Your task to perform on an android device: Search for seafood restaurants on Google Maps Image 0: 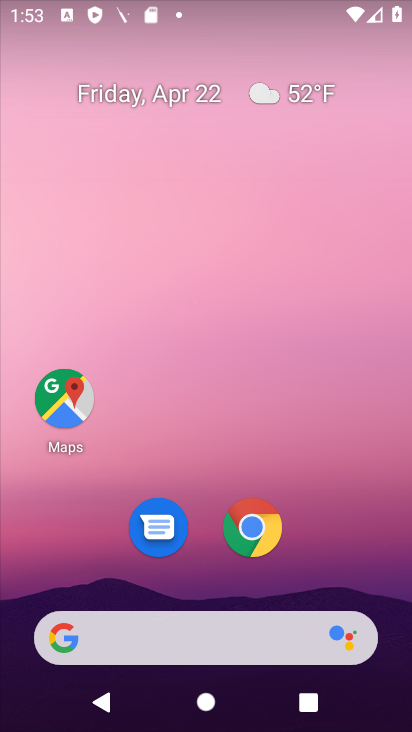
Step 0: click (66, 409)
Your task to perform on an android device: Search for seafood restaurants on Google Maps Image 1: 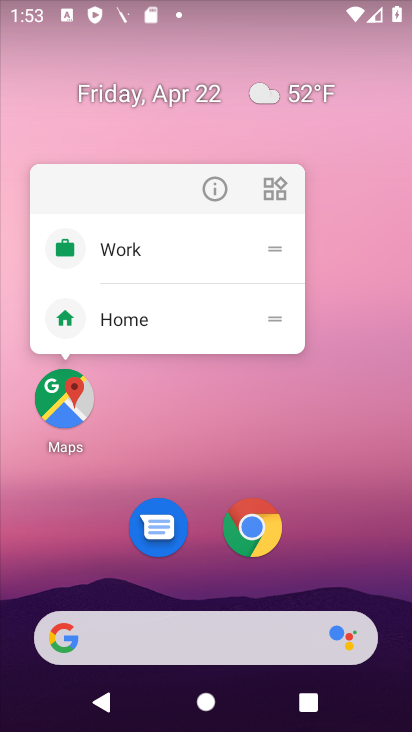
Step 1: click (66, 409)
Your task to perform on an android device: Search for seafood restaurants on Google Maps Image 2: 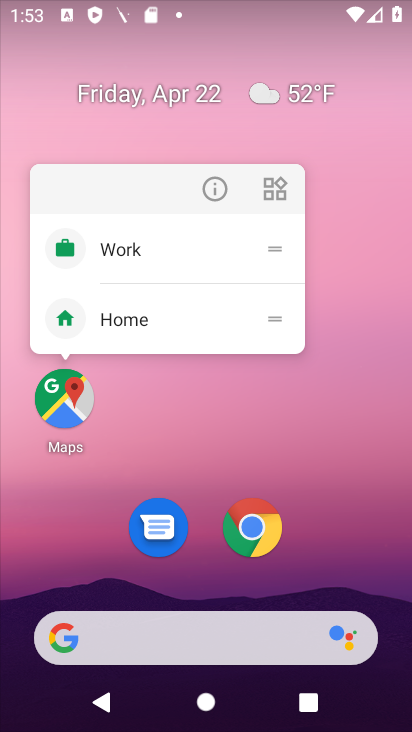
Step 2: click (62, 397)
Your task to perform on an android device: Search for seafood restaurants on Google Maps Image 3: 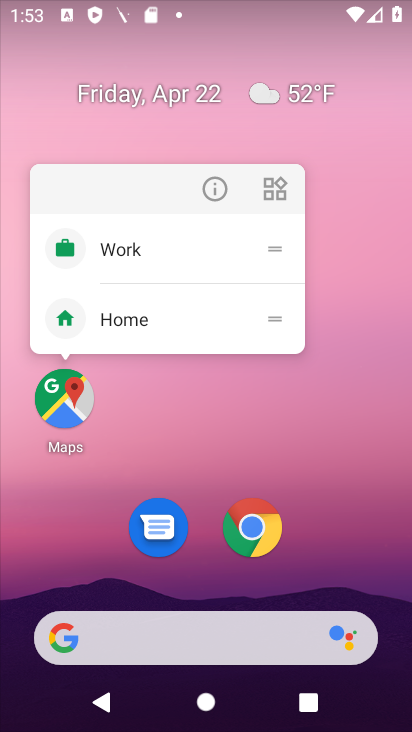
Step 3: click (62, 396)
Your task to perform on an android device: Search for seafood restaurants on Google Maps Image 4: 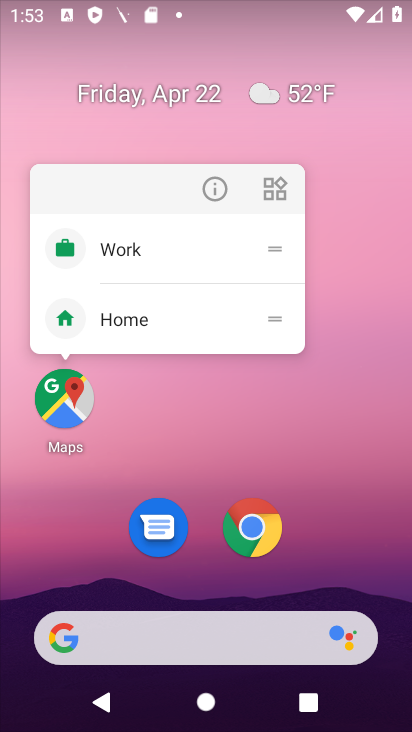
Step 4: click (62, 395)
Your task to perform on an android device: Search for seafood restaurants on Google Maps Image 5: 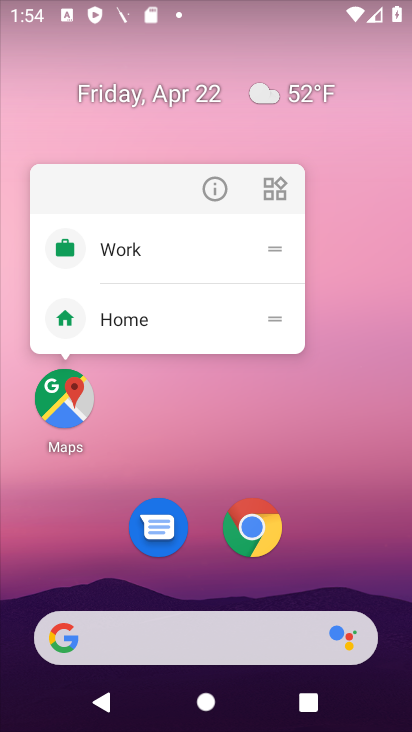
Step 5: click (62, 394)
Your task to perform on an android device: Search for seafood restaurants on Google Maps Image 6: 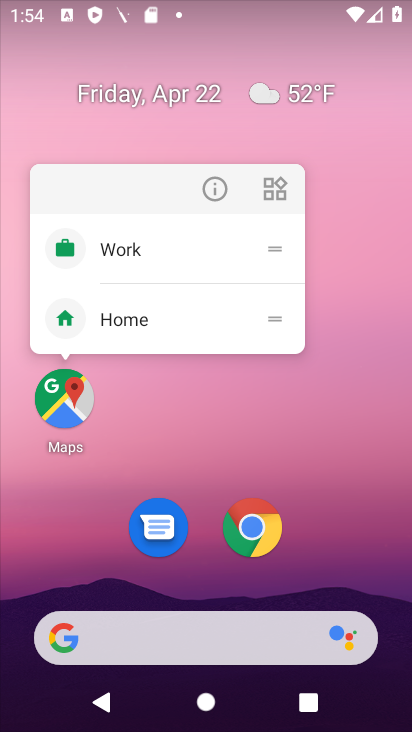
Step 6: click (62, 393)
Your task to perform on an android device: Search for seafood restaurants on Google Maps Image 7: 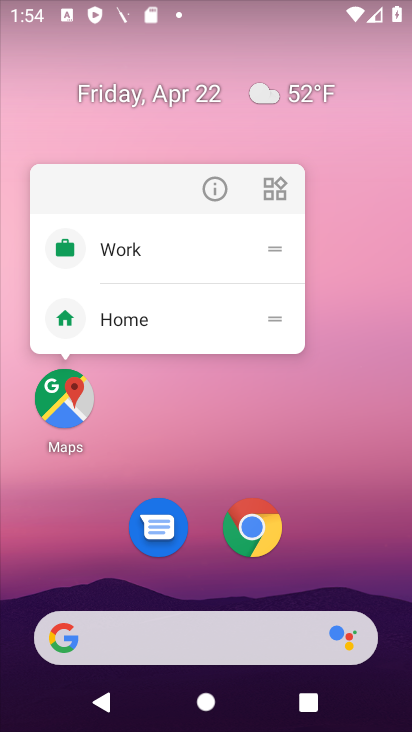
Step 7: click (62, 394)
Your task to perform on an android device: Search for seafood restaurants on Google Maps Image 8: 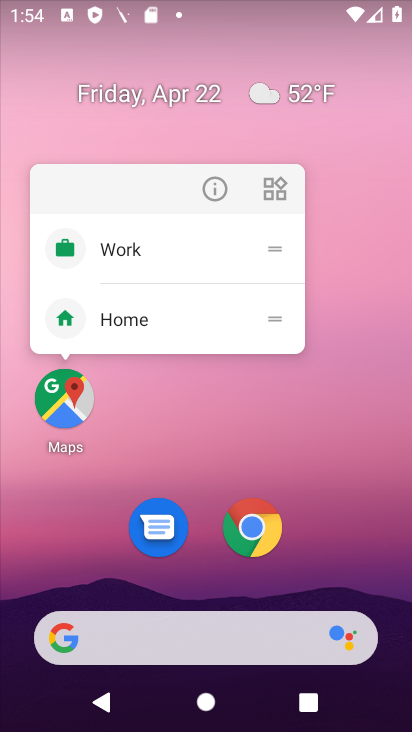
Step 8: click (62, 394)
Your task to perform on an android device: Search for seafood restaurants on Google Maps Image 9: 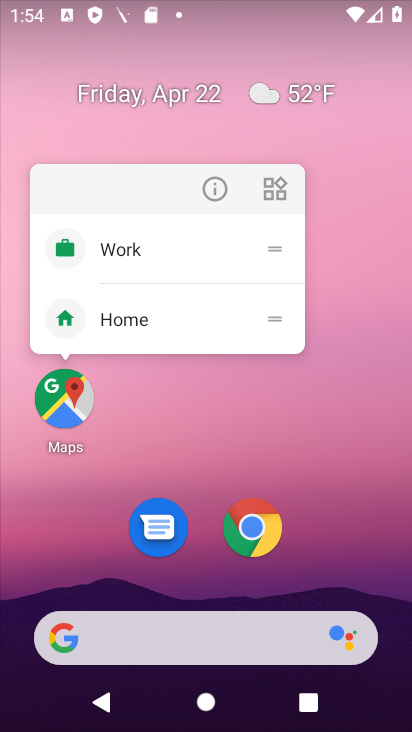
Step 9: click (62, 394)
Your task to perform on an android device: Search for seafood restaurants on Google Maps Image 10: 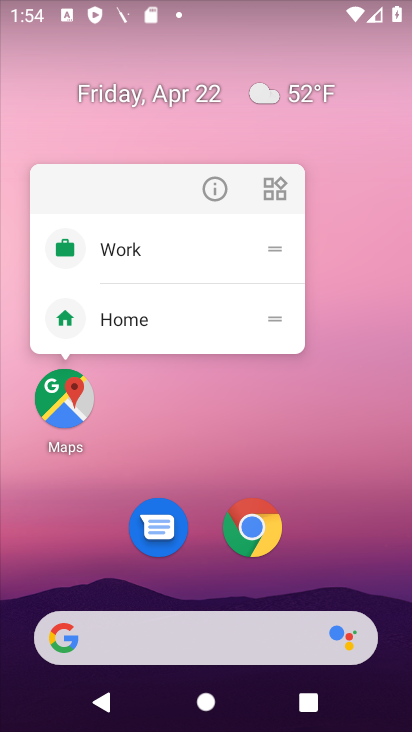
Step 10: click (62, 394)
Your task to perform on an android device: Search for seafood restaurants on Google Maps Image 11: 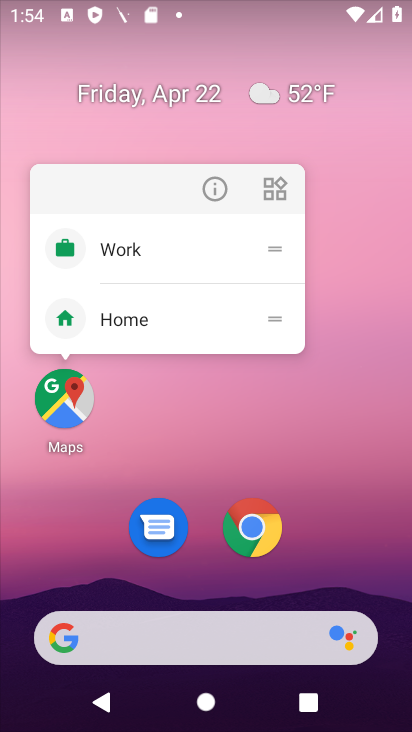
Step 11: click (62, 394)
Your task to perform on an android device: Search for seafood restaurants on Google Maps Image 12: 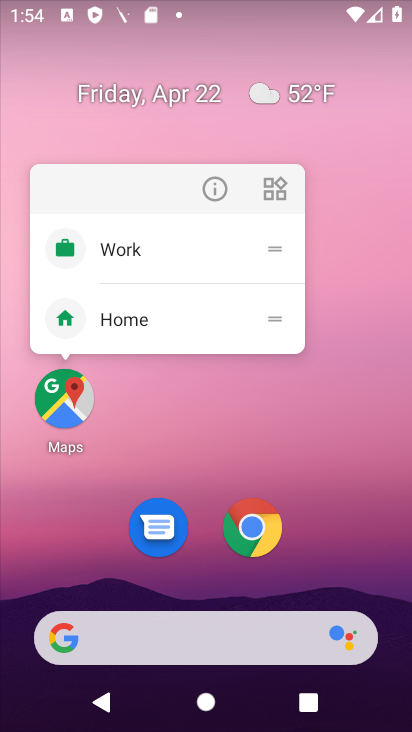
Step 12: click (62, 394)
Your task to perform on an android device: Search for seafood restaurants on Google Maps Image 13: 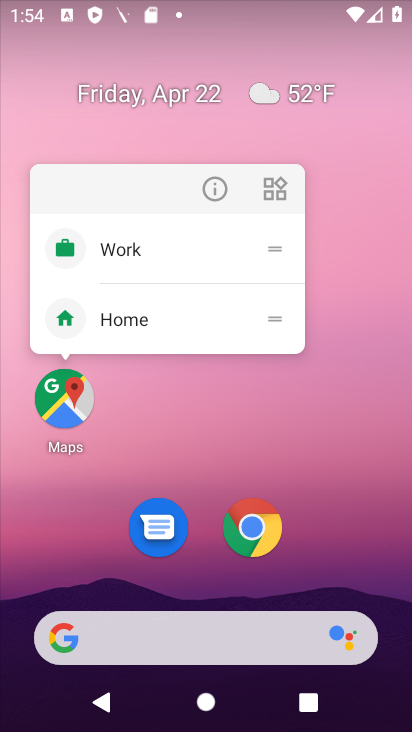
Step 13: click (62, 394)
Your task to perform on an android device: Search for seafood restaurants on Google Maps Image 14: 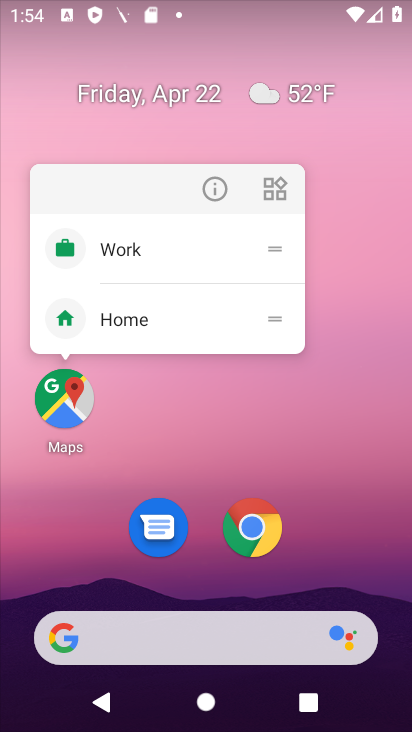
Step 14: click (62, 394)
Your task to perform on an android device: Search for seafood restaurants on Google Maps Image 15: 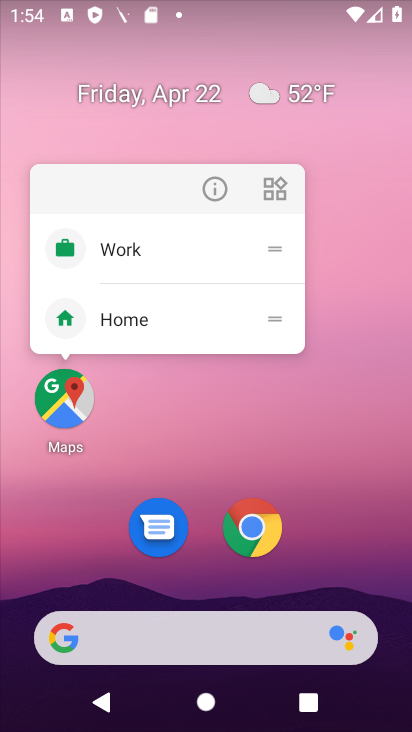
Step 15: click (62, 394)
Your task to perform on an android device: Search for seafood restaurants on Google Maps Image 16: 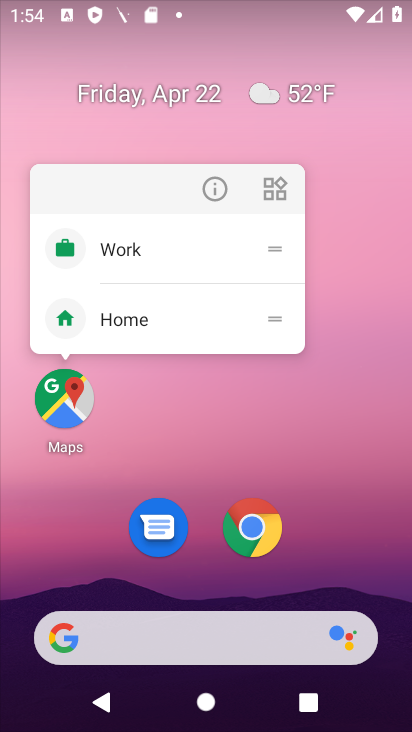
Step 16: click (62, 394)
Your task to perform on an android device: Search for seafood restaurants on Google Maps Image 17: 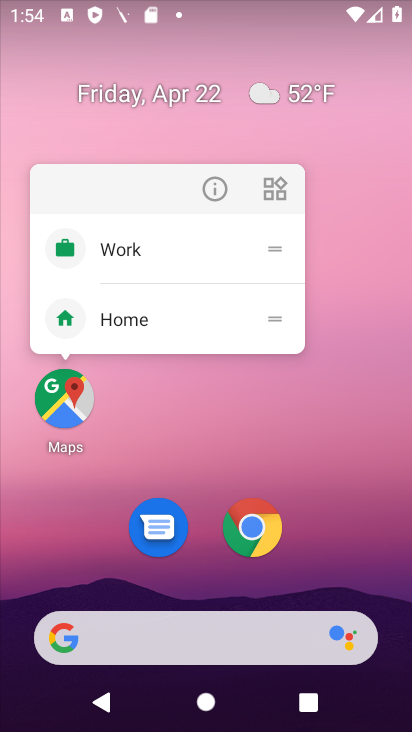
Step 17: click (62, 394)
Your task to perform on an android device: Search for seafood restaurants on Google Maps Image 18: 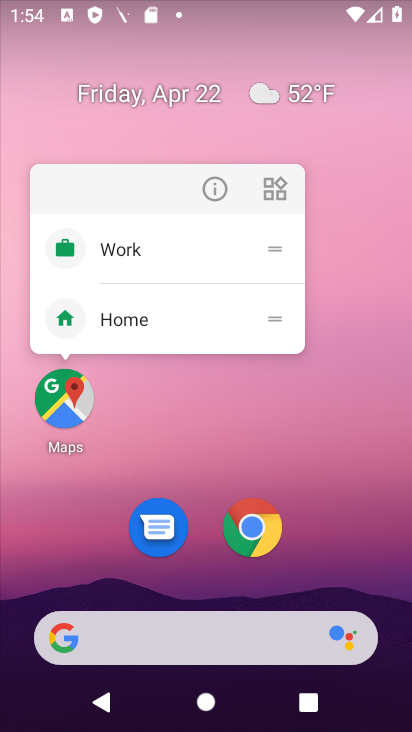
Step 18: click (62, 394)
Your task to perform on an android device: Search for seafood restaurants on Google Maps Image 19: 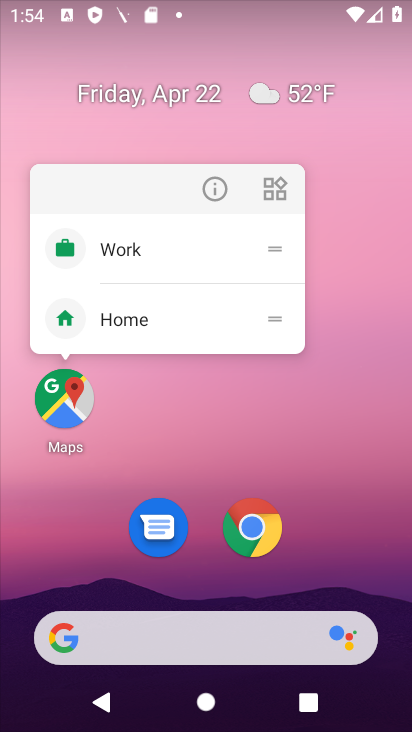
Step 19: click (62, 394)
Your task to perform on an android device: Search for seafood restaurants on Google Maps Image 20: 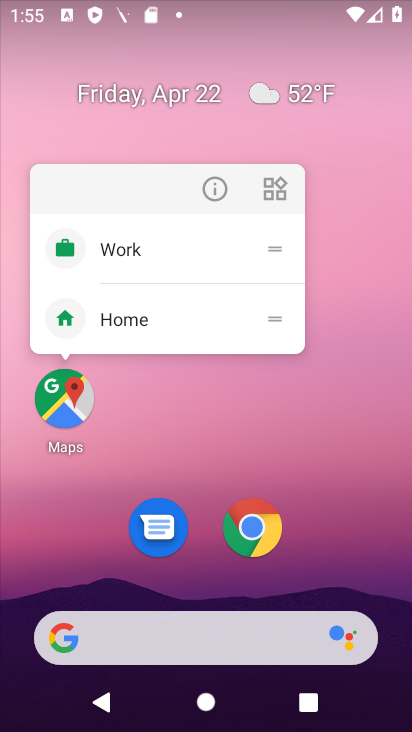
Step 20: click (62, 394)
Your task to perform on an android device: Search for seafood restaurants on Google Maps Image 21: 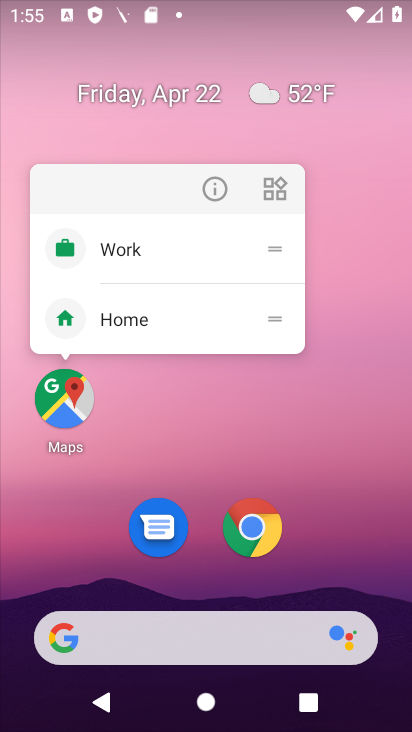
Step 21: click (62, 394)
Your task to perform on an android device: Search for seafood restaurants on Google Maps Image 22: 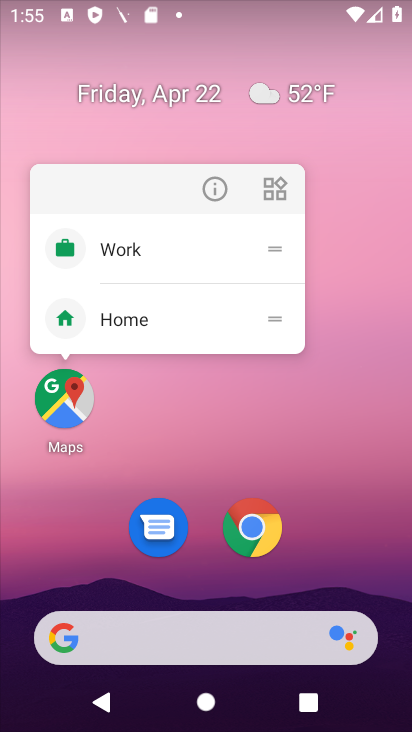
Step 22: click (62, 394)
Your task to perform on an android device: Search for seafood restaurants on Google Maps Image 23: 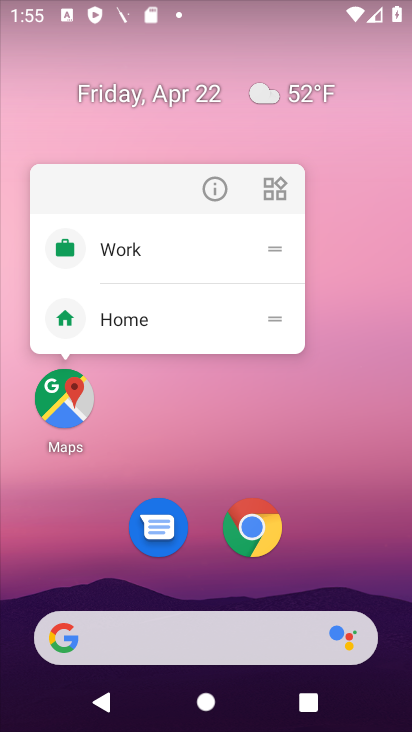
Step 23: click (62, 394)
Your task to perform on an android device: Search for seafood restaurants on Google Maps Image 24: 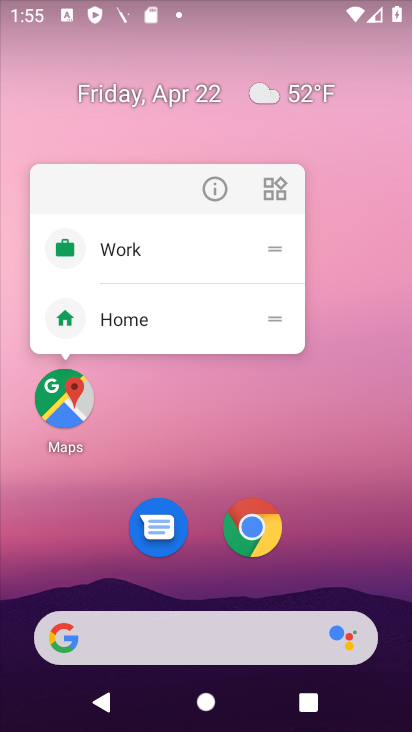
Step 24: click (62, 394)
Your task to perform on an android device: Search for seafood restaurants on Google Maps Image 25: 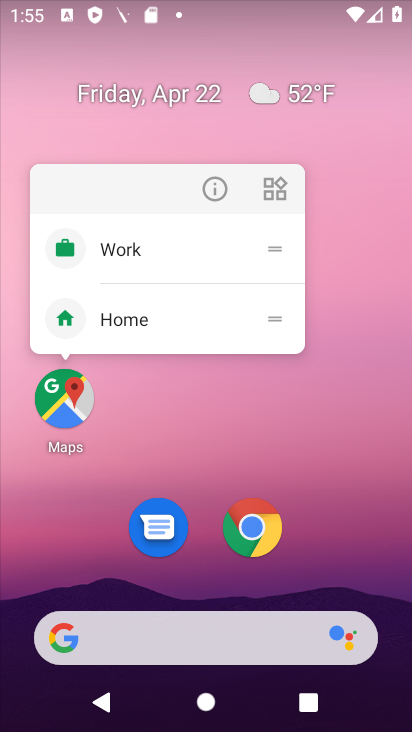
Step 25: click (62, 394)
Your task to perform on an android device: Search for seafood restaurants on Google Maps Image 26: 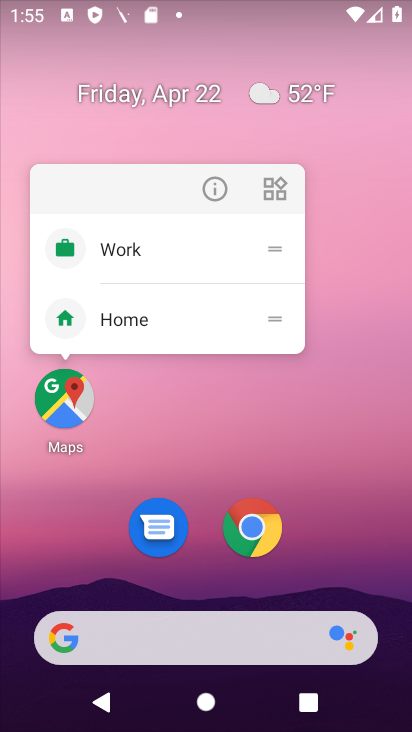
Step 26: click (62, 394)
Your task to perform on an android device: Search for seafood restaurants on Google Maps Image 27: 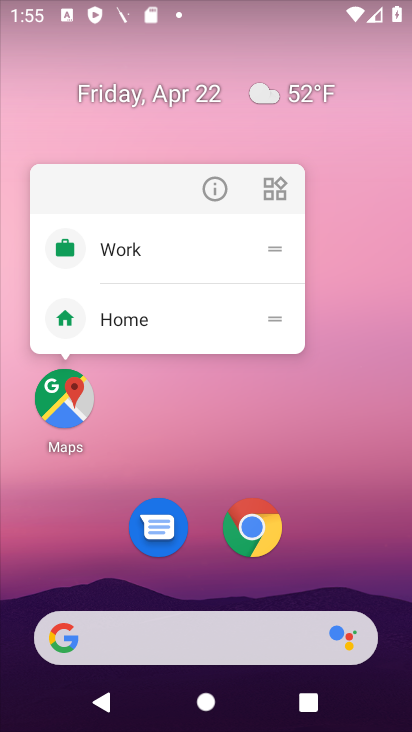
Step 27: click (62, 394)
Your task to perform on an android device: Search for seafood restaurants on Google Maps Image 28: 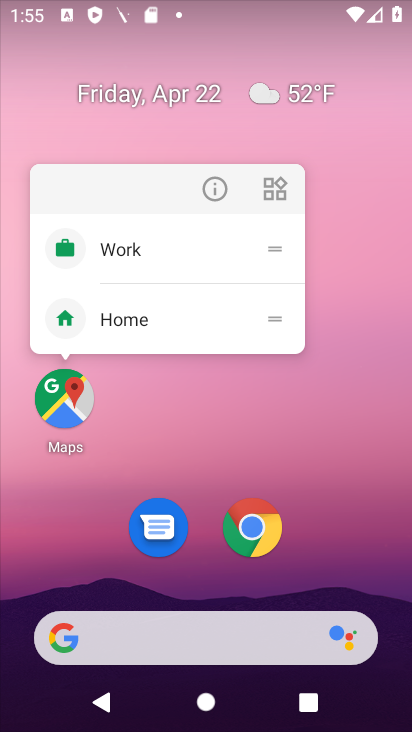
Step 28: click (62, 394)
Your task to perform on an android device: Search for seafood restaurants on Google Maps Image 29: 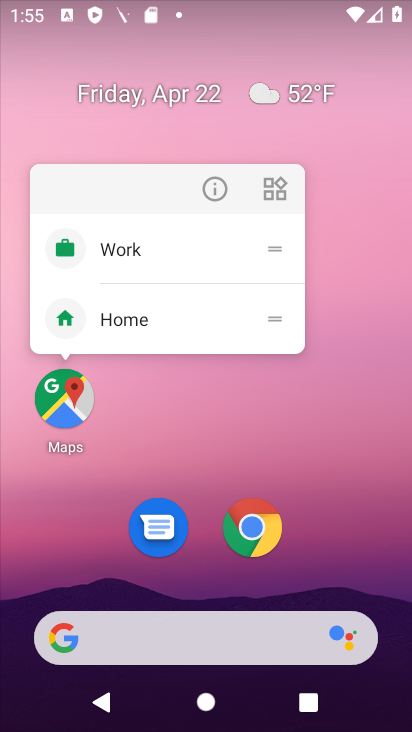
Step 29: click (62, 394)
Your task to perform on an android device: Search for seafood restaurants on Google Maps Image 30: 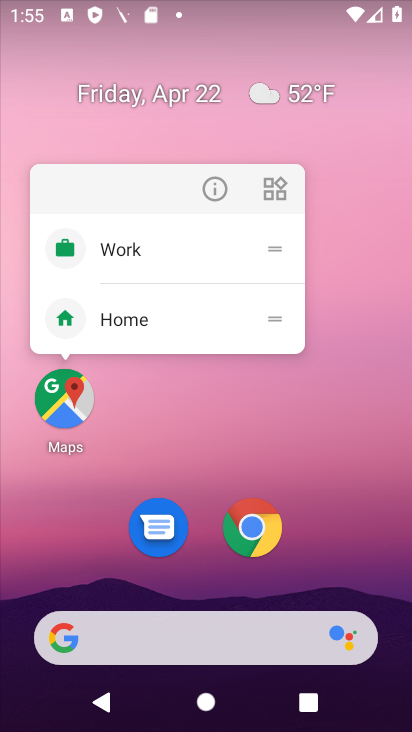
Step 30: click (62, 394)
Your task to perform on an android device: Search for seafood restaurants on Google Maps Image 31: 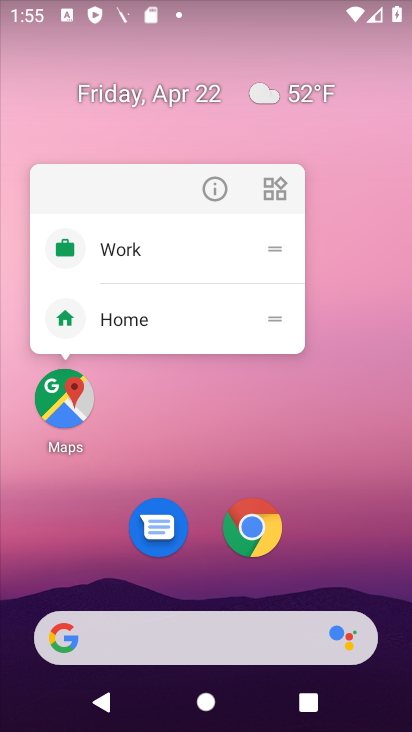
Step 31: click (62, 394)
Your task to perform on an android device: Search for seafood restaurants on Google Maps Image 32: 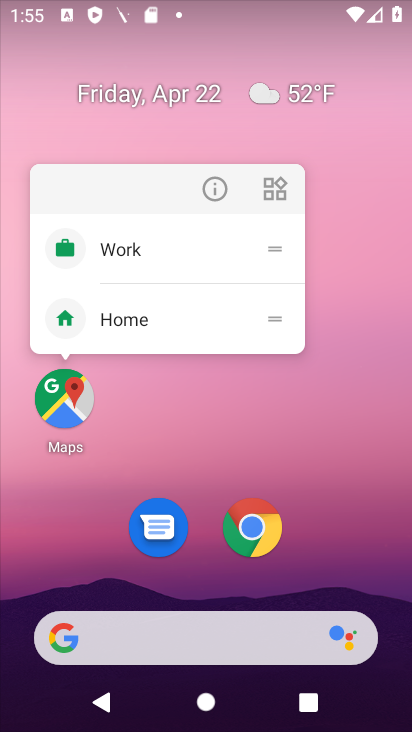
Step 32: click (62, 394)
Your task to perform on an android device: Search for seafood restaurants on Google Maps Image 33: 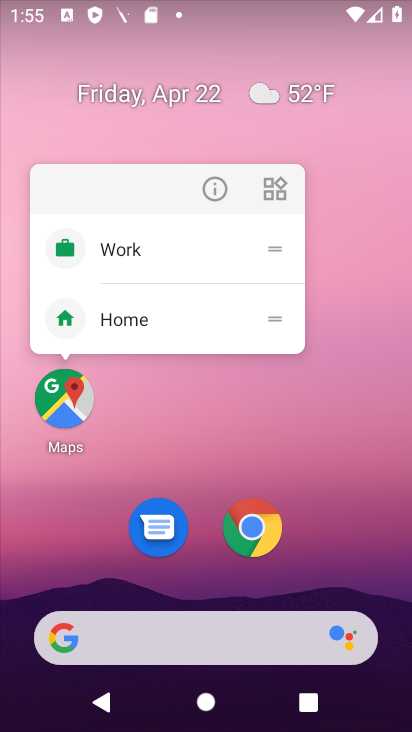
Step 33: click (62, 394)
Your task to perform on an android device: Search for seafood restaurants on Google Maps Image 34: 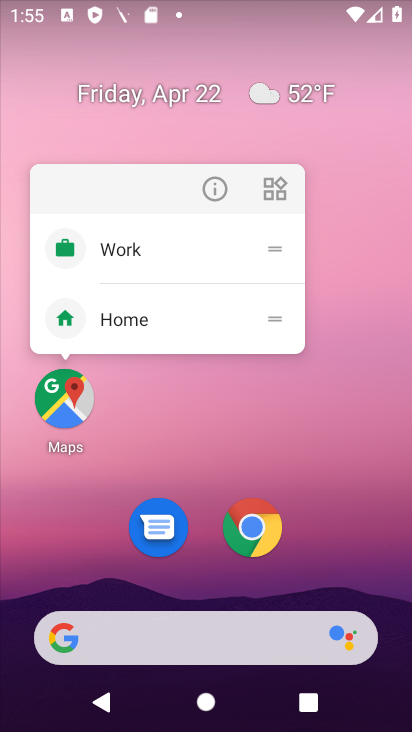
Step 34: click (62, 394)
Your task to perform on an android device: Search for seafood restaurants on Google Maps Image 35: 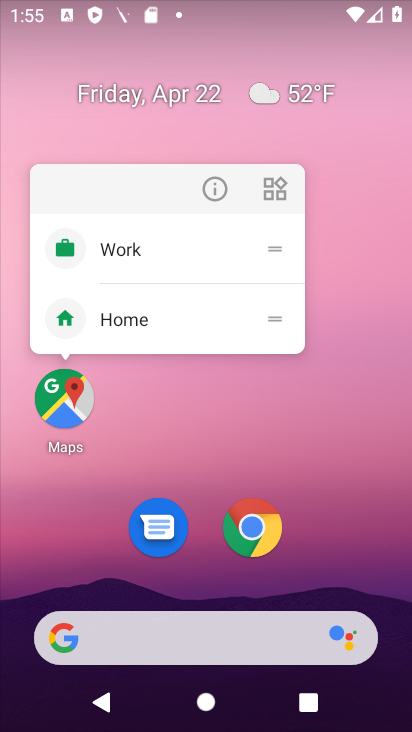
Step 35: click (62, 394)
Your task to perform on an android device: Search for seafood restaurants on Google Maps Image 36: 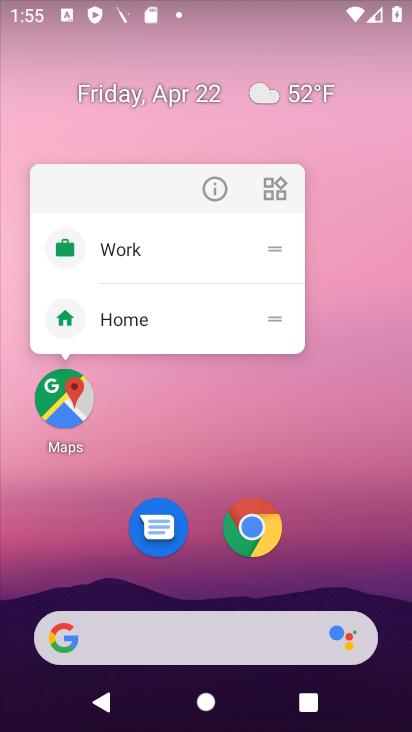
Step 36: click (62, 394)
Your task to perform on an android device: Search for seafood restaurants on Google Maps Image 37: 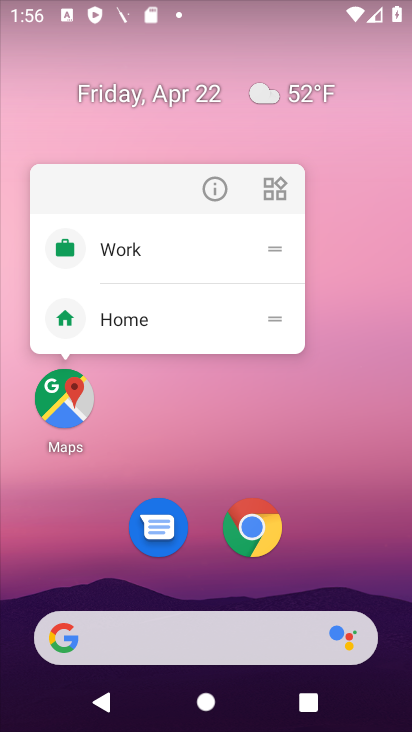
Step 37: click (62, 394)
Your task to perform on an android device: Search for seafood restaurants on Google Maps Image 38: 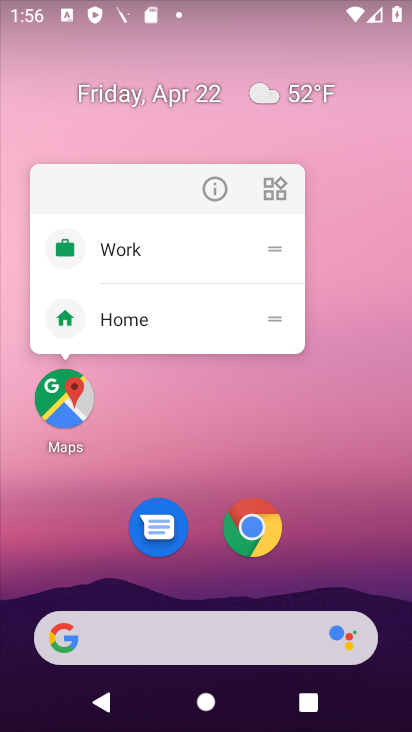
Step 38: click (62, 394)
Your task to perform on an android device: Search for seafood restaurants on Google Maps Image 39: 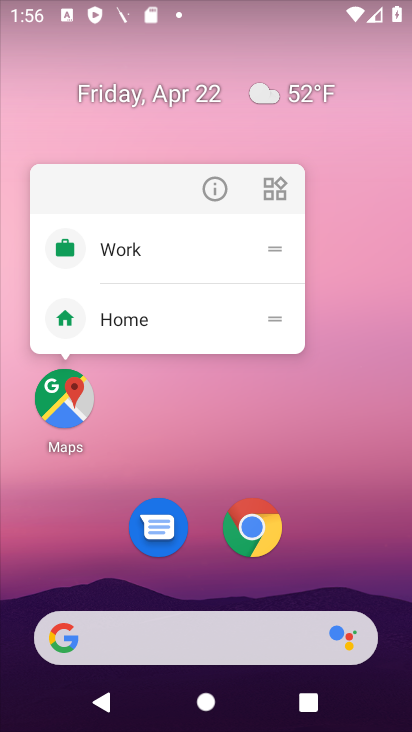
Step 39: click (62, 394)
Your task to perform on an android device: Search for seafood restaurants on Google Maps Image 40: 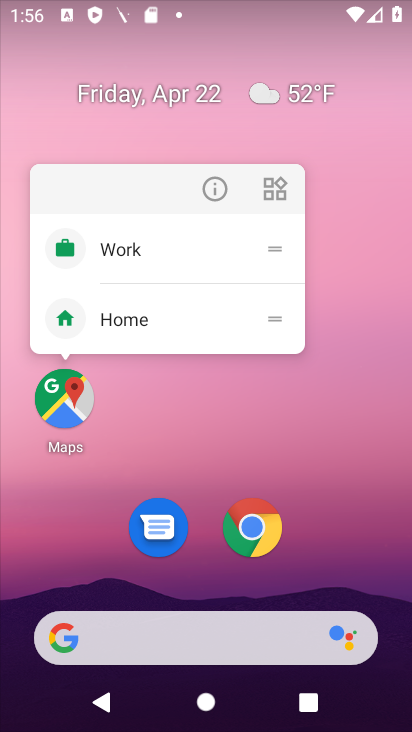
Step 40: task complete